Your task to perform on an android device: Open Google Maps and go to "Timeline" Image 0: 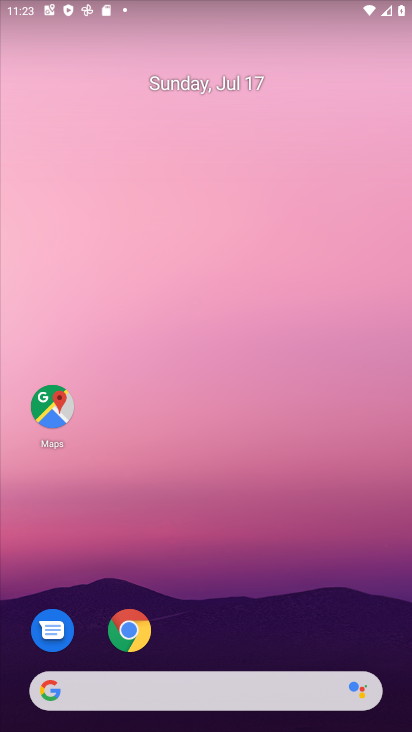
Step 0: drag from (234, 649) to (211, 225)
Your task to perform on an android device: Open Google Maps and go to "Timeline" Image 1: 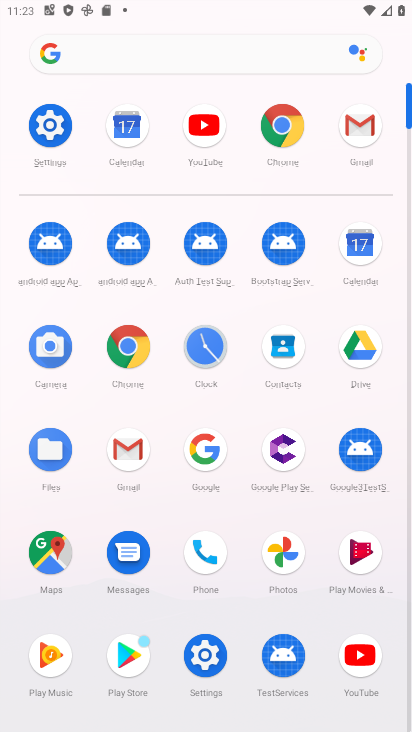
Step 1: click (32, 117)
Your task to perform on an android device: Open Google Maps and go to "Timeline" Image 2: 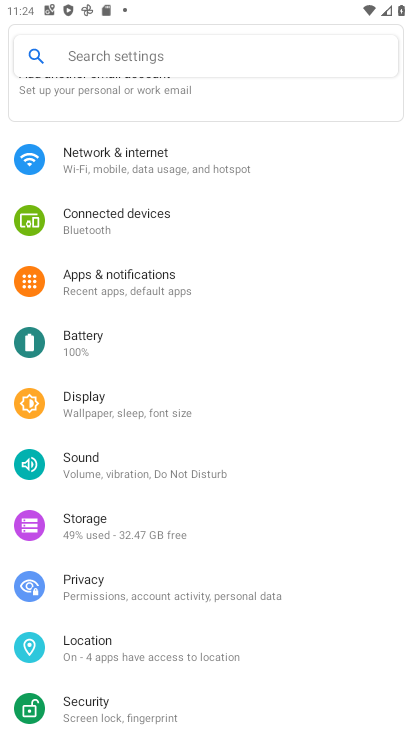
Step 2: press home button
Your task to perform on an android device: Open Google Maps and go to "Timeline" Image 3: 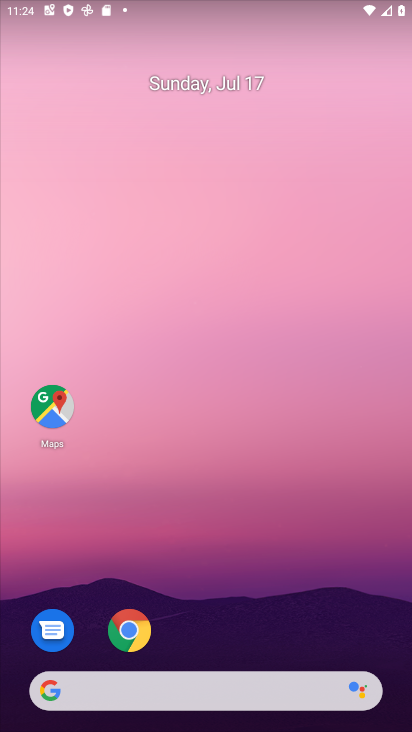
Step 3: click (38, 411)
Your task to perform on an android device: Open Google Maps and go to "Timeline" Image 4: 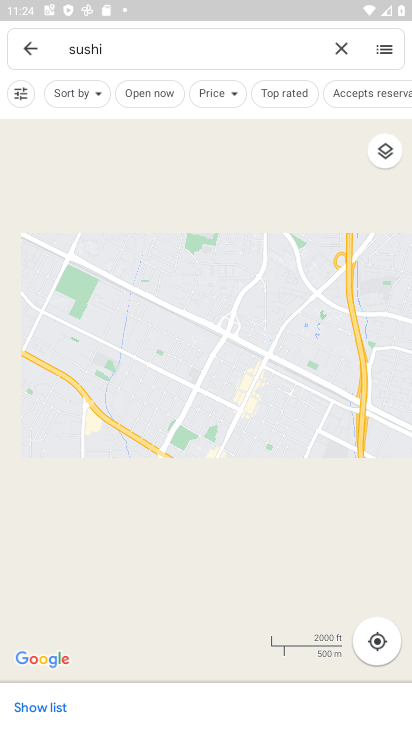
Step 4: click (343, 48)
Your task to perform on an android device: Open Google Maps and go to "Timeline" Image 5: 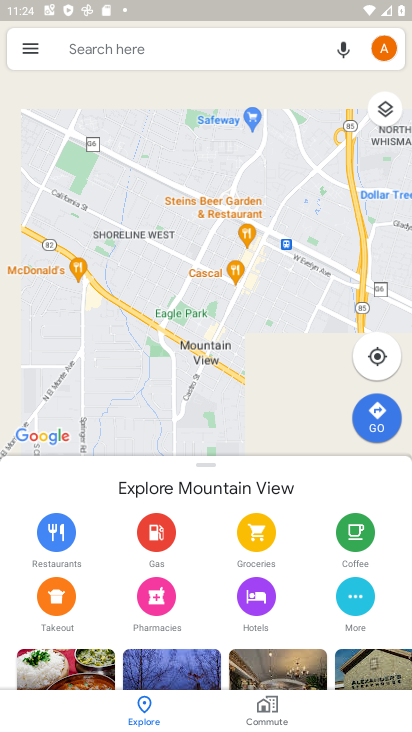
Step 5: click (19, 56)
Your task to perform on an android device: Open Google Maps and go to "Timeline" Image 6: 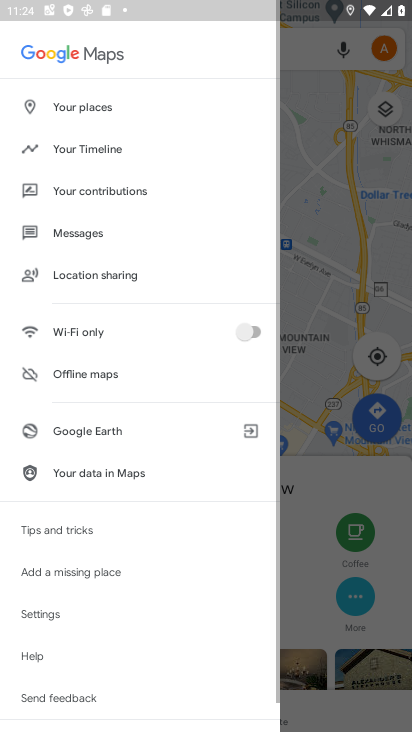
Step 6: click (111, 157)
Your task to perform on an android device: Open Google Maps and go to "Timeline" Image 7: 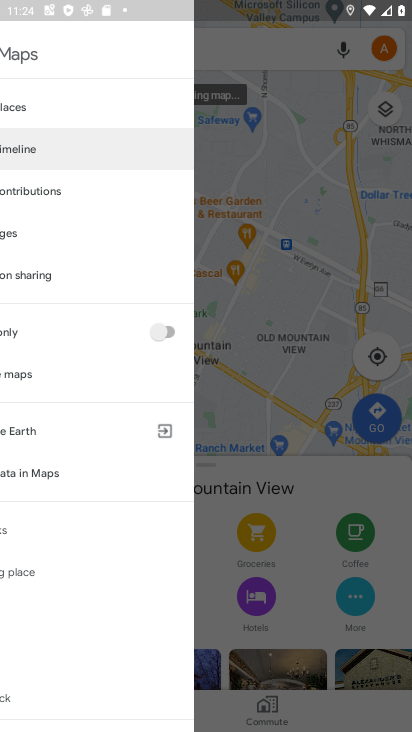
Step 7: task complete